Your task to perform on an android device: open app "ColorNote Notepad Notes" (install if not already installed) Image 0: 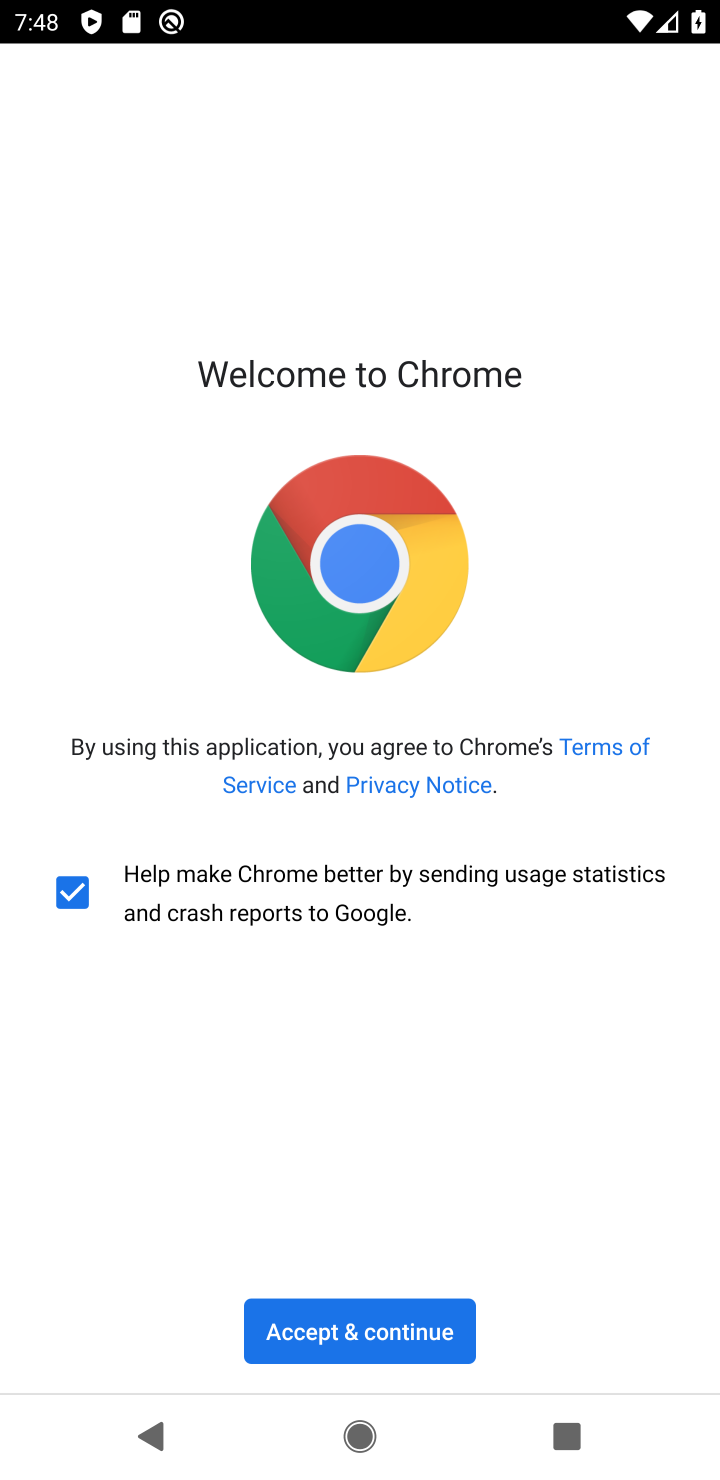
Step 0: press home button
Your task to perform on an android device: open app "ColorNote Notepad Notes" (install if not already installed) Image 1: 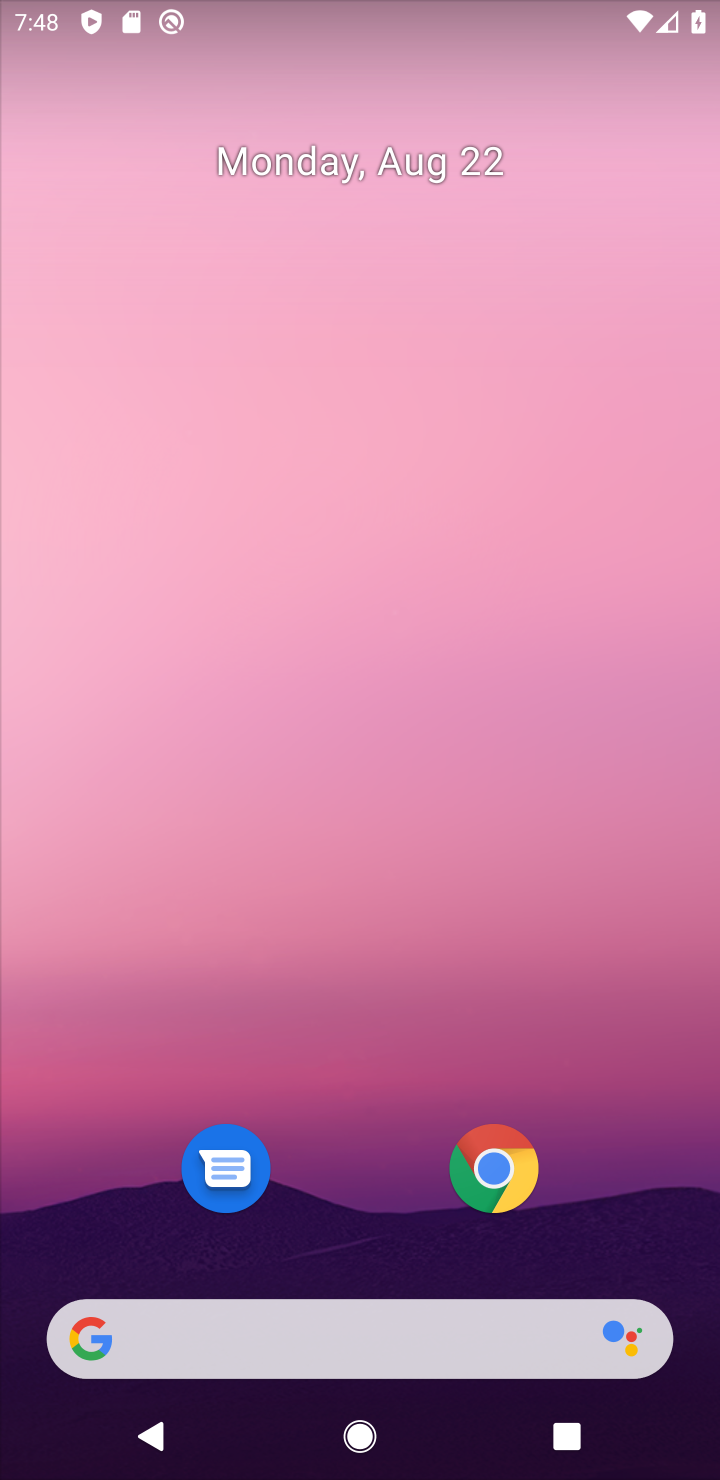
Step 1: drag from (684, 1242) to (476, 59)
Your task to perform on an android device: open app "ColorNote Notepad Notes" (install if not already installed) Image 2: 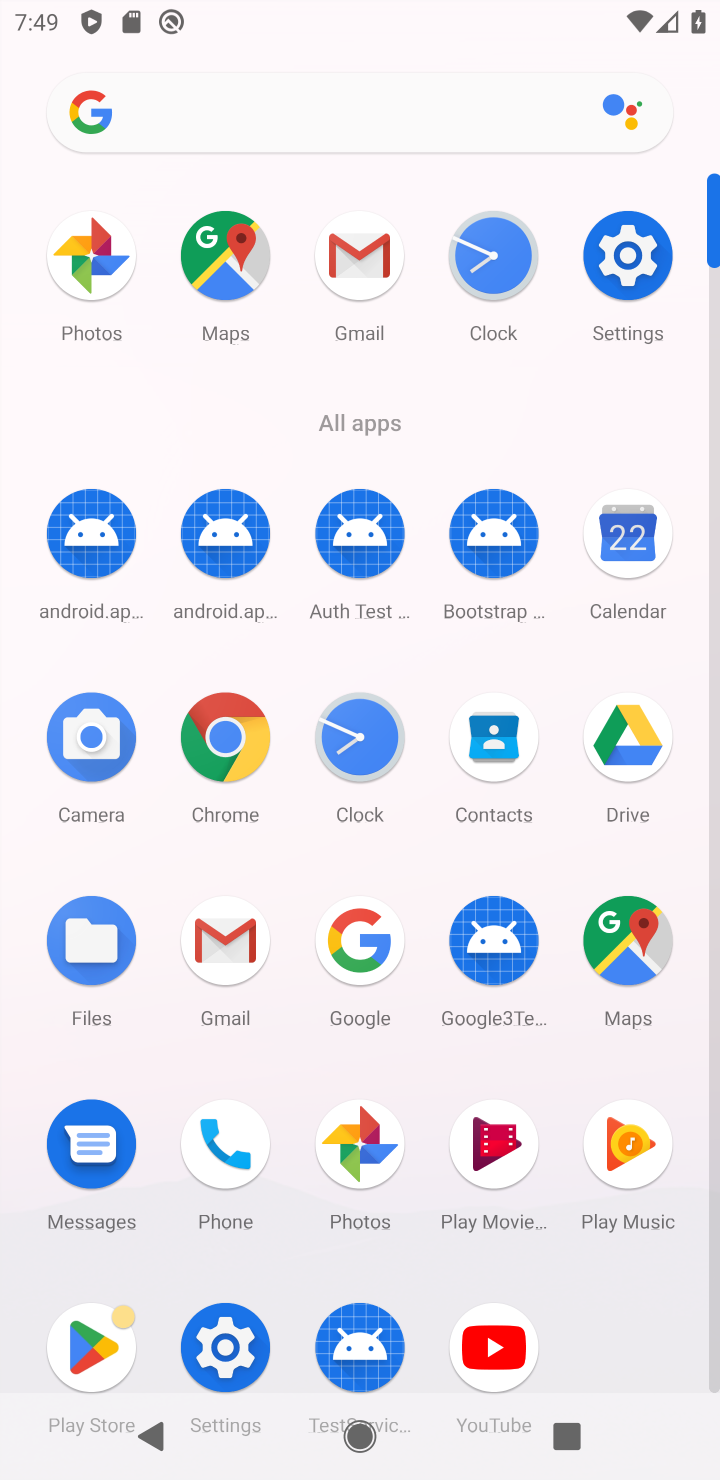
Step 2: click (96, 1342)
Your task to perform on an android device: open app "ColorNote Notepad Notes" (install if not already installed) Image 3: 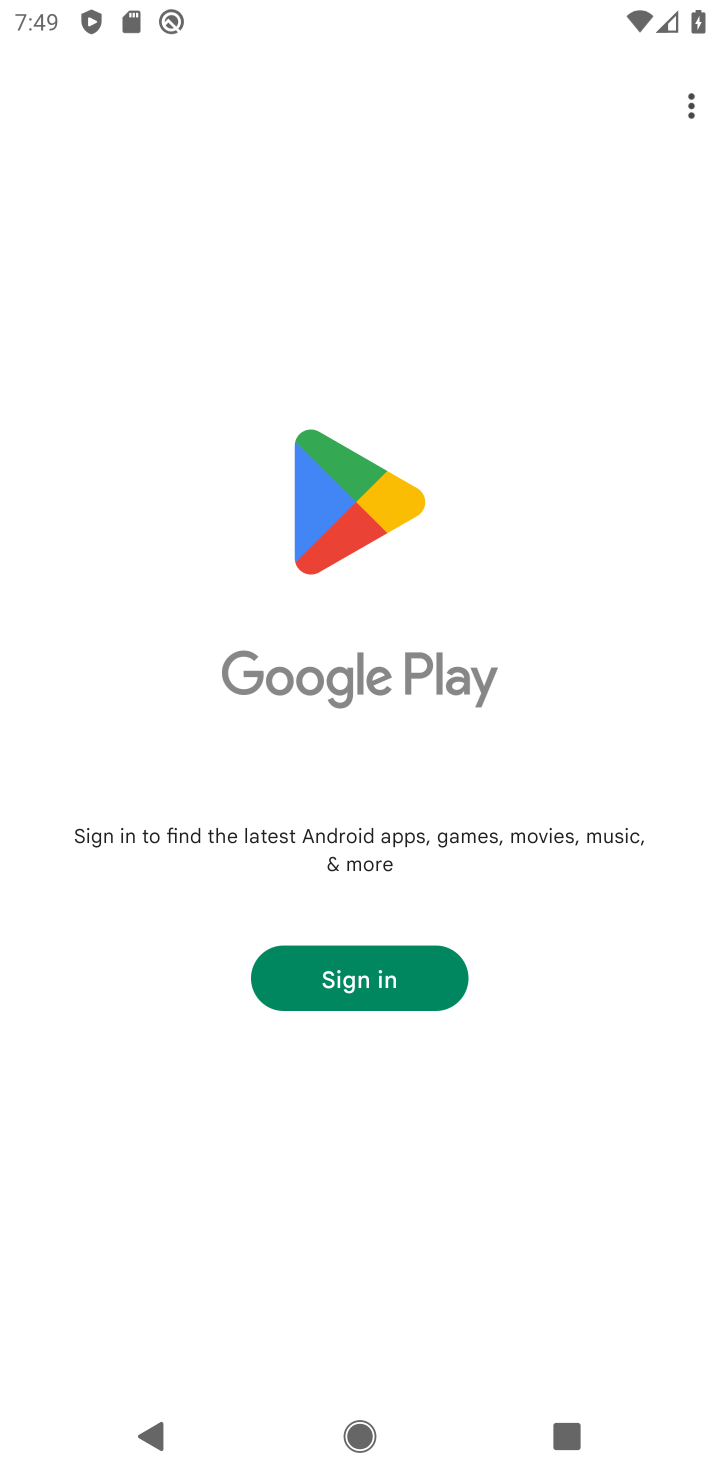
Step 3: click (341, 981)
Your task to perform on an android device: open app "ColorNote Notepad Notes" (install if not already installed) Image 4: 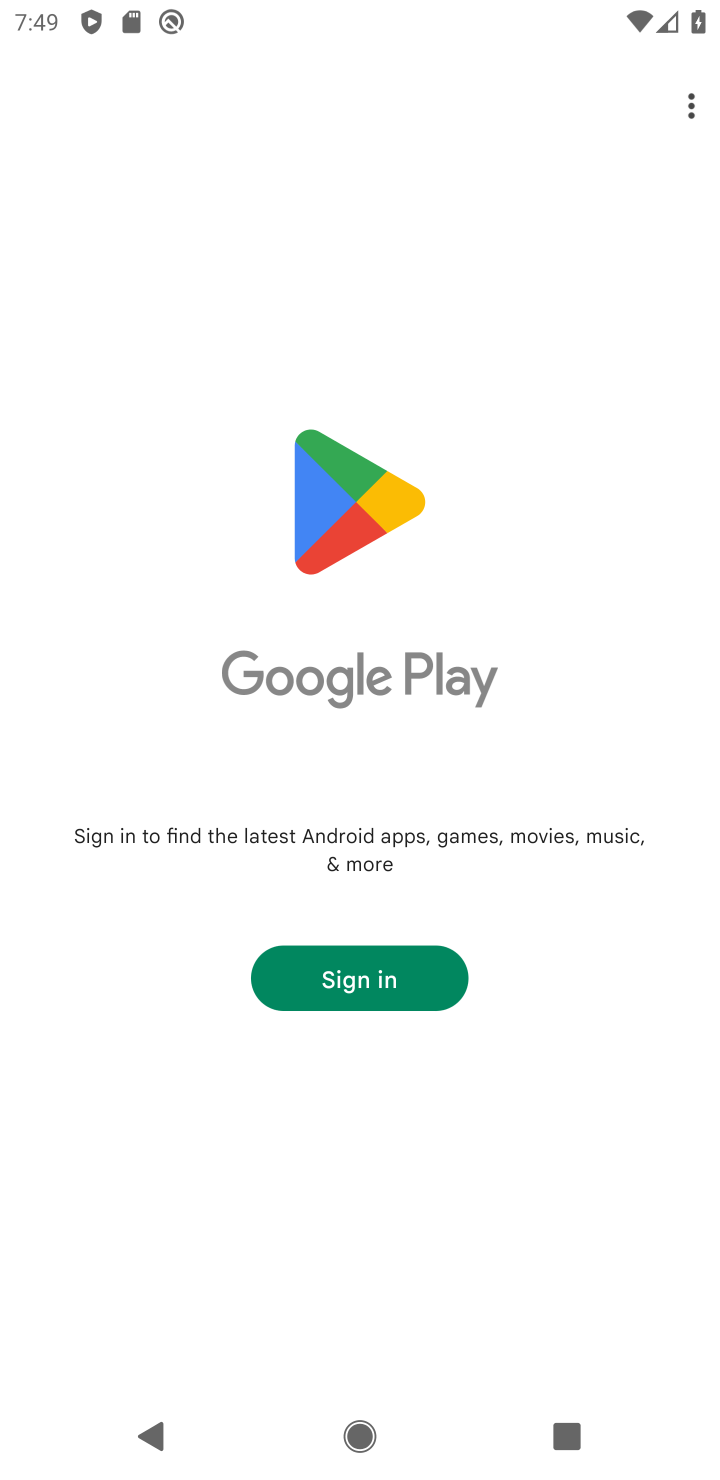
Step 4: task complete